Your task to perform on an android device: Is it going to rain this weekend? Image 0: 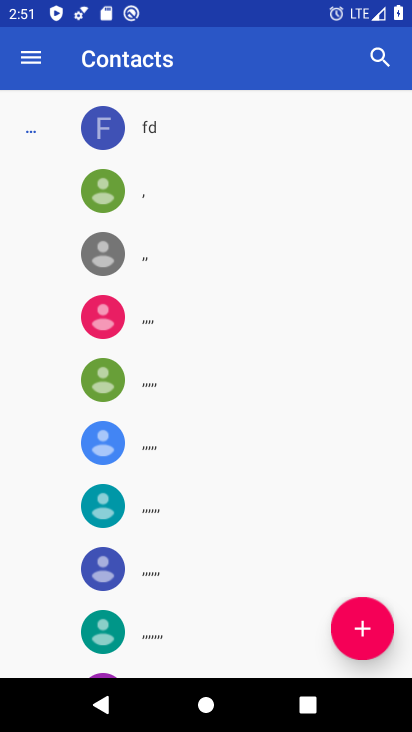
Step 0: press home button
Your task to perform on an android device: Is it going to rain this weekend? Image 1: 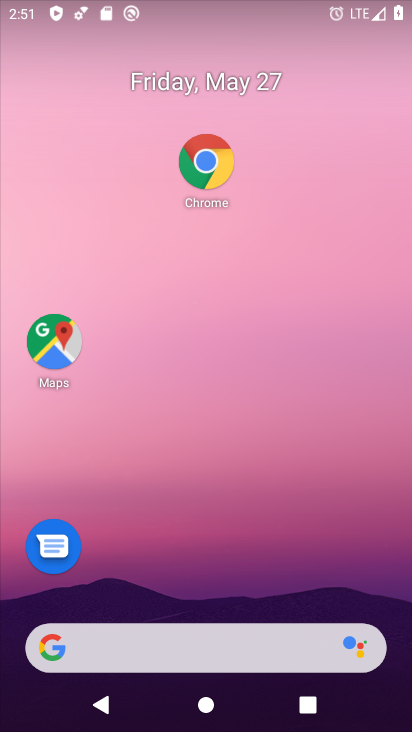
Step 1: click (208, 166)
Your task to perform on an android device: Is it going to rain this weekend? Image 2: 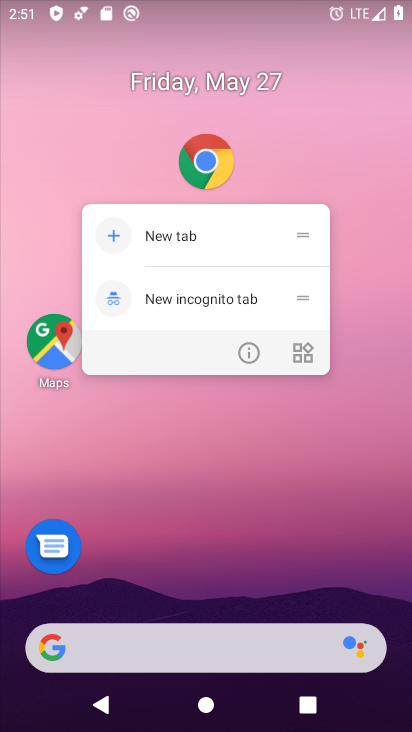
Step 2: click (198, 159)
Your task to perform on an android device: Is it going to rain this weekend? Image 3: 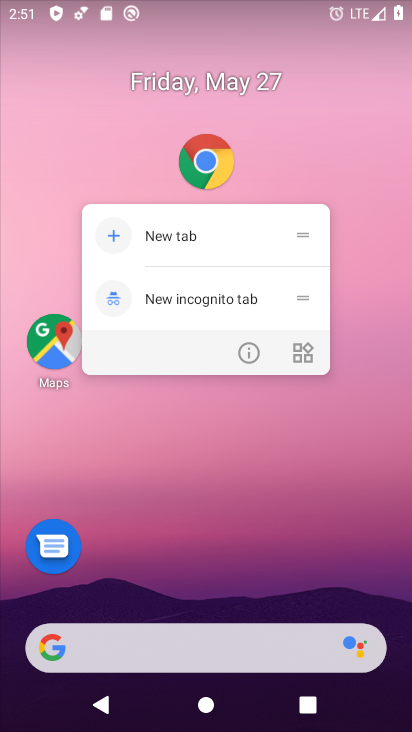
Step 3: click (207, 161)
Your task to perform on an android device: Is it going to rain this weekend? Image 4: 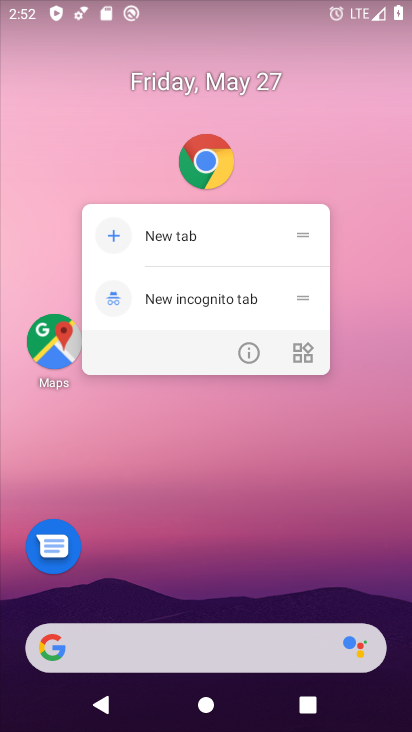
Step 4: click (207, 161)
Your task to perform on an android device: Is it going to rain this weekend? Image 5: 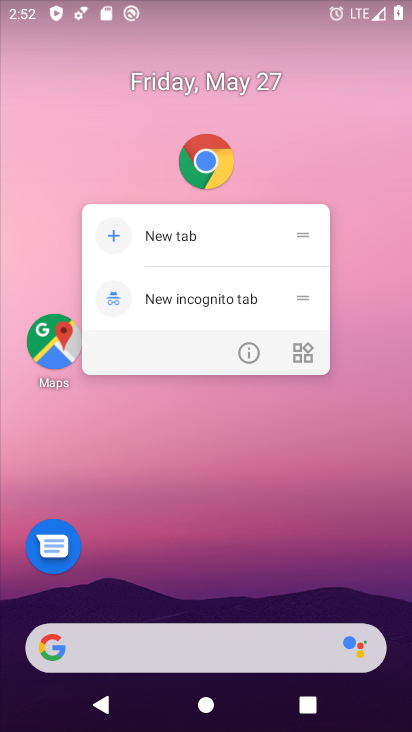
Step 5: click (207, 157)
Your task to perform on an android device: Is it going to rain this weekend? Image 6: 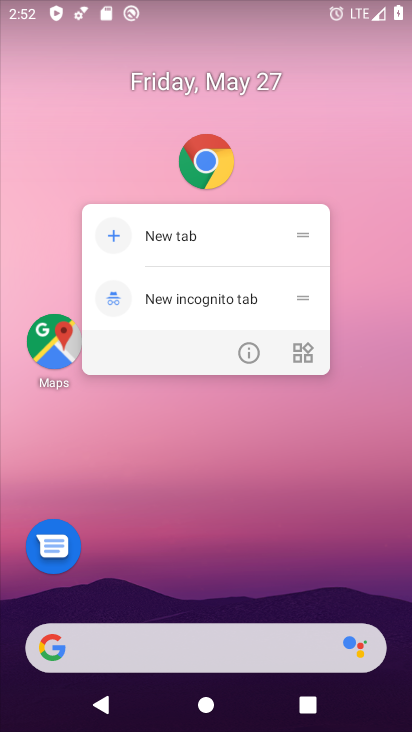
Step 6: click (207, 155)
Your task to perform on an android device: Is it going to rain this weekend? Image 7: 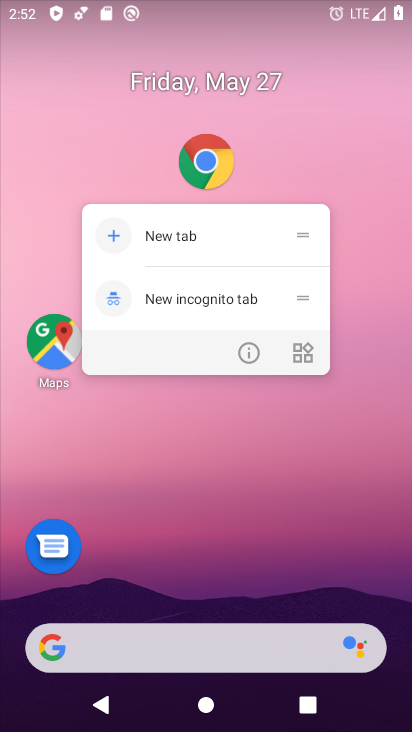
Step 7: click (208, 154)
Your task to perform on an android device: Is it going to rain this weekend? Image 8: 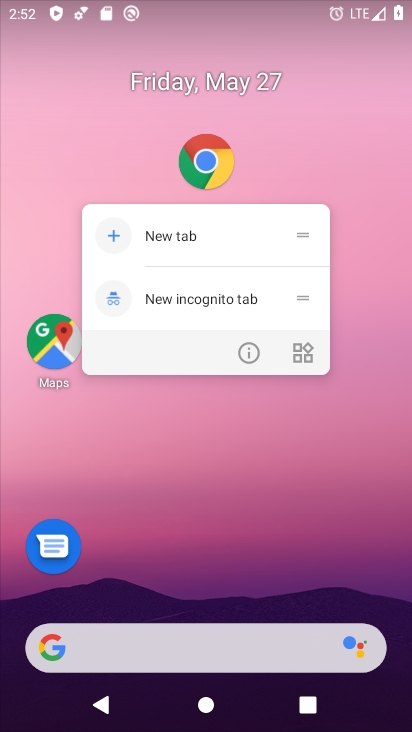
Step 8: click (208, 153)
Your task to perform on an android device: Is it going to rain this weekend? Image 9: 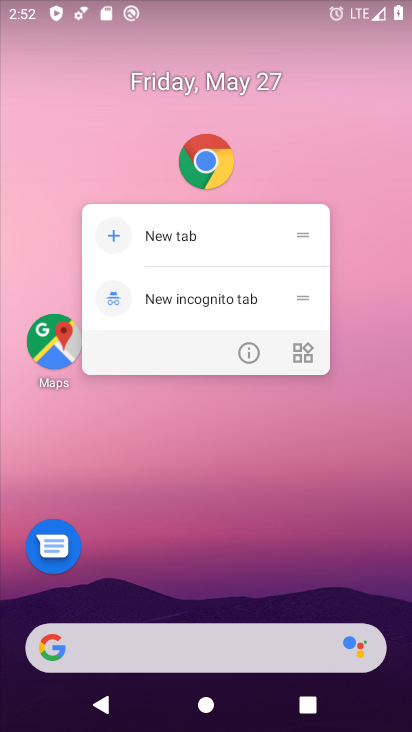
Step 9: drag from (247, 375) to (290, 115)
Your task to perform on an android device: Is it going to rain this weekend? Image 10: 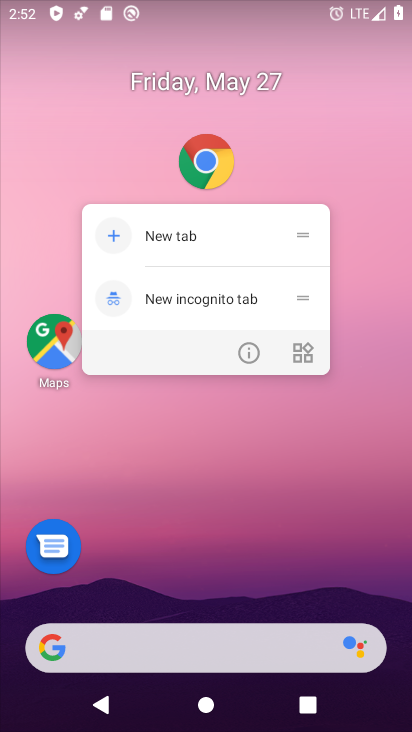
Step 10: drag from (171, 532) to (238, 147)
Your task to perform on an android device: Is it going to rain this weekend? Image 11: 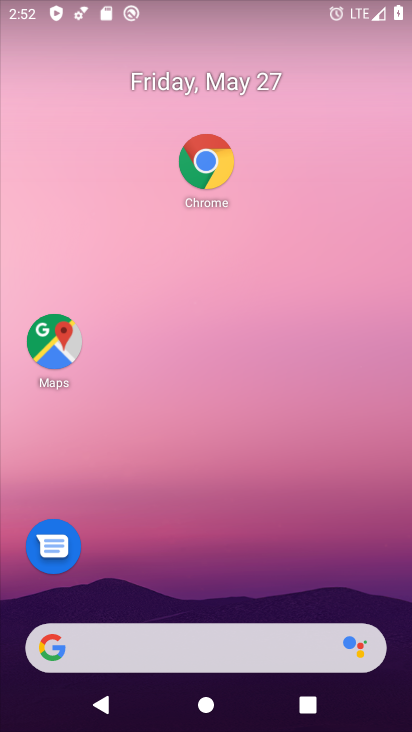
Step 11: drag from (190, 579) to (225, 134)
Your task to perform on an android device: Is it going to rain this weekend? Image 12: 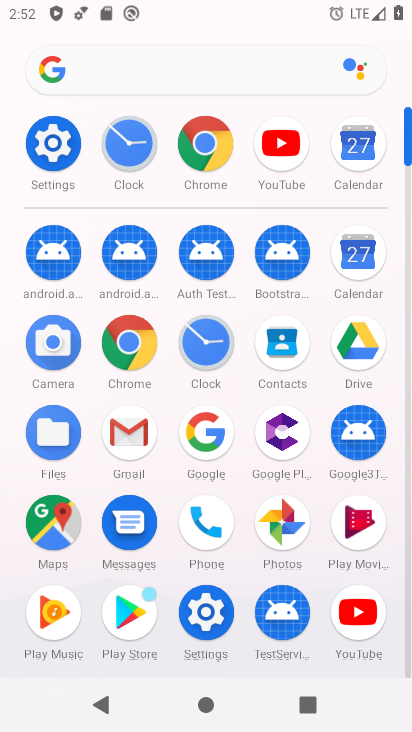
Step 12: click (122, 346)
Your task to perform on an android device: Is it going to rain this weekend? Image 13: 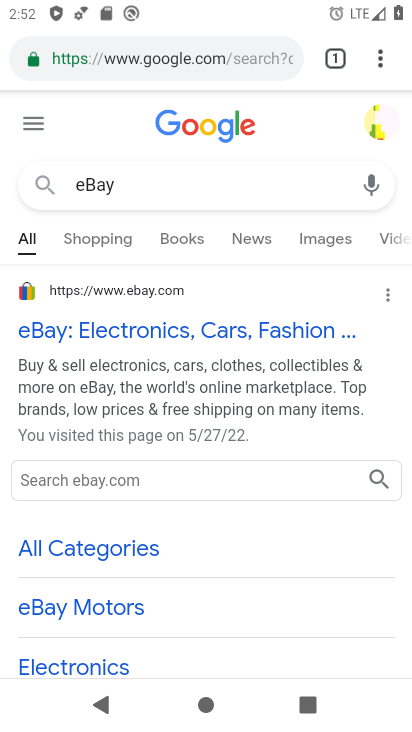
Step 13: click (133, 58)
Your task to perform on an android device: Is it going to rain this weekend? Image 14: 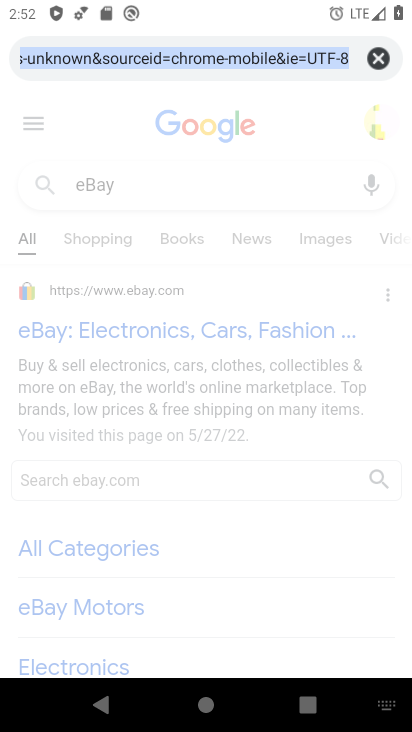
Step 14: type "Is it going to rain this weekend?"
Your task to perform on an android device: Is it going to rain this weekend? Image 15: 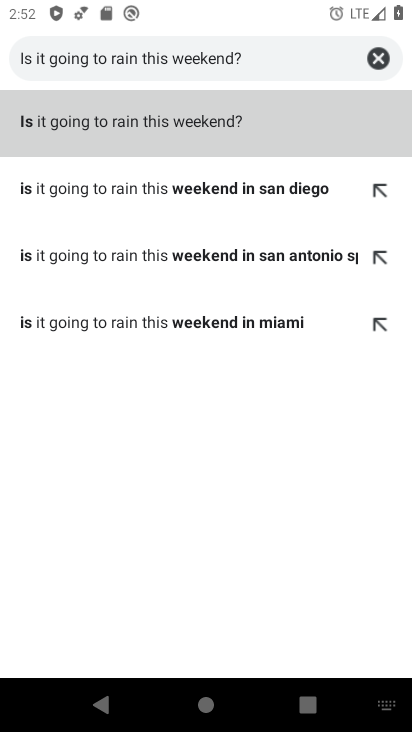
Step 15: click (251, 129)
Your task to perform on an android device: Is it going to rain this weekend? Image 16: 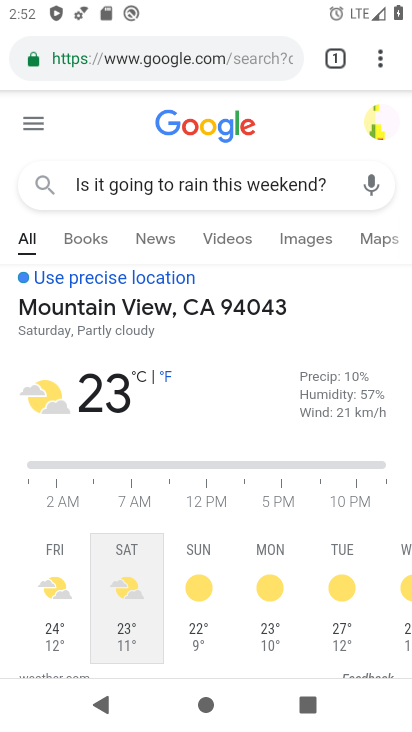
Step 16: task complete